Your task to perform on an android device: Add razer blade to the cart on bestbuy.com, then select checkout. Image 0: 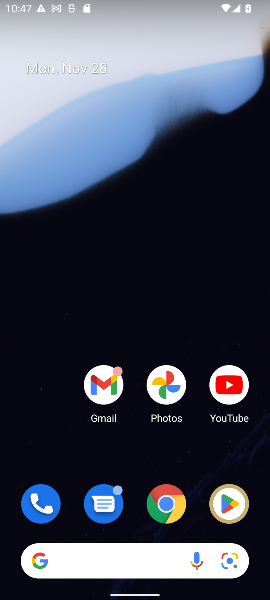
Step 0: click (166, 515)
Your task to perform on an android device: Add razer blade to the cart on bestbuy.com, then select checkout. Image 1: 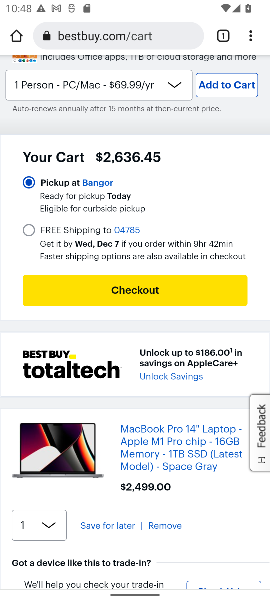
Step 1: drag from (264, 134) to (267, 228)
Your task to perform on an android device: Add razer blade to the cart on bestbuy.com, then select checkout. Image 2: 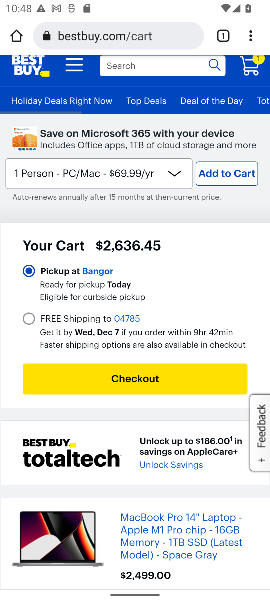
Step 2: click (128, 63)
Your task to perform on an android device: Add razer blade to the cart on bestbuy.com, then select checkout. Image 3: 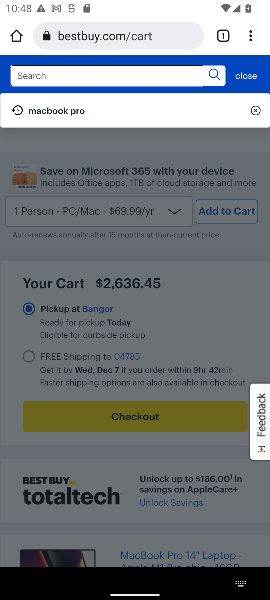
Step 3: click (56, 76)
Your task to perform on an android device: Add razer blade to the cart on bestbuy.com, then select checkout. Image 4: 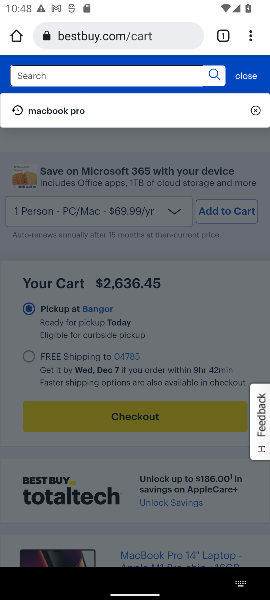
Step 4: type "razer blade"
Your task to perform on an android device: Add razer blade to the cart on bestbuy.com, then select checkout. Image 5: 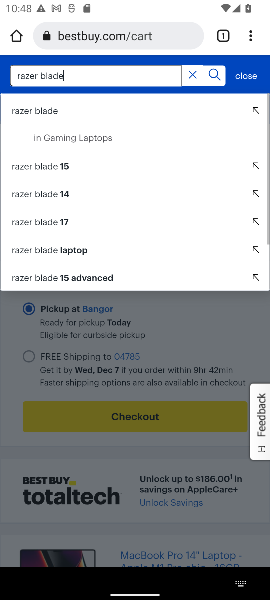
Step 5: click (33, 114)
Your task to perform on an android device: Add razer blade to the cart on bestbuy.com, then select checkout. Image 6: 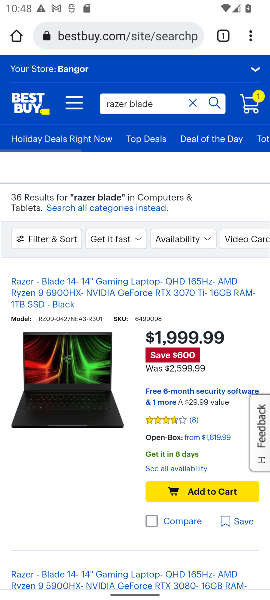
Step 6: click (193, 492)
Your task to perform on an android device: Add razer blade to the cart on bestbuy.com, then select checkout. Image 7: 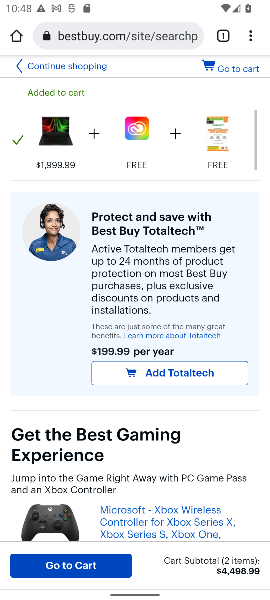
Step 7: click (240, 71)
Your task to perform on an android device: Add razer blade to the cart on bestbuy.com, then select checkout. Image 8: 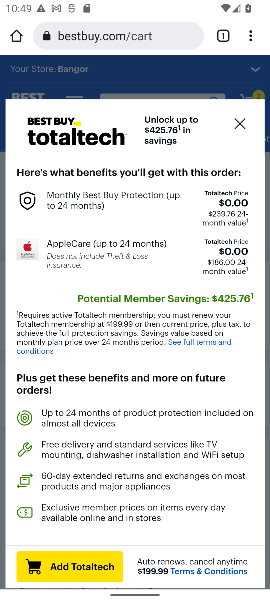
Step 8: click (128, 321)
Your task to perform on an android device: Add razer blade to the cart on bestbuy.com, then select checkout. Image 9: 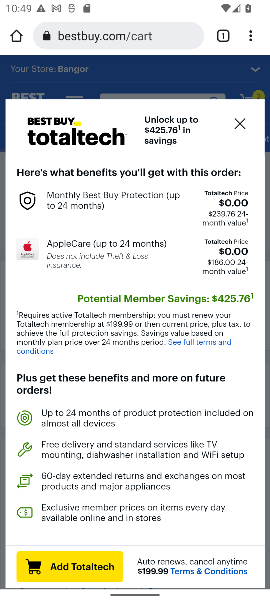
Step 9: click (242, 124)
Your task to perform on an android device: Add razer blade to the cart on bestbuy.com, then select checkout. Image 10: 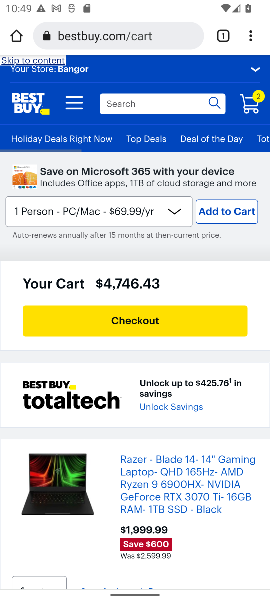
Step 10: click (151, 315)
Your task to perform on an android device: Add razer blade to the cart on bestbuy.com, then select checkout. Image 11: 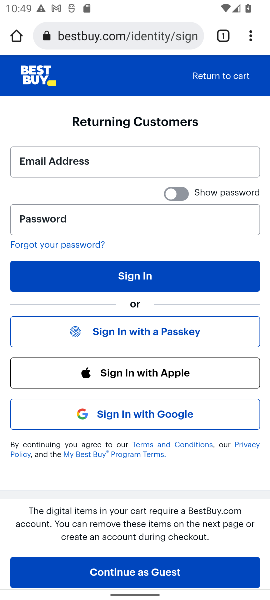
Step 11: task complete